Your task to perform on an android device: Search for vegetarian restaurants on Maps Image 0: 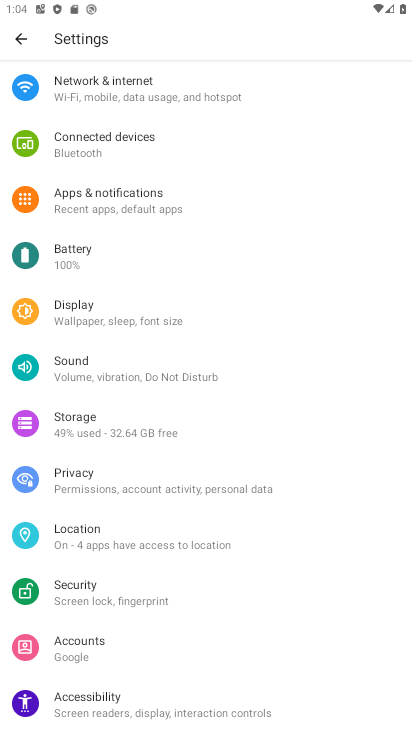
Step 0: press home button
Your task to perform on an android device: Search for vegetarian restaurants on Maps Image 1: 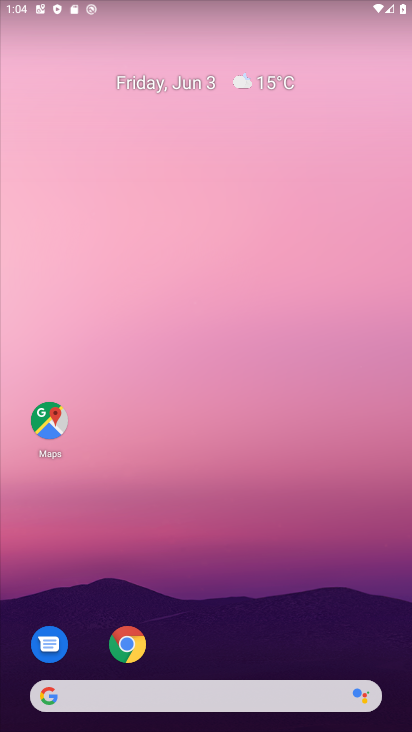
Step 1: click (48, 413)
Your task to perform on an android device: Search for vegetarian restaurants on Maps Image 2: 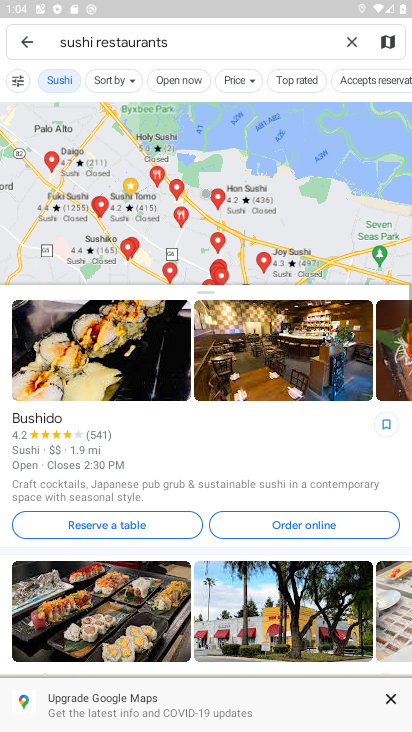
Step 2: click (69, 42)
Your task to perform on an android device: Search for vegetarian restaurants on Maps Image 3: 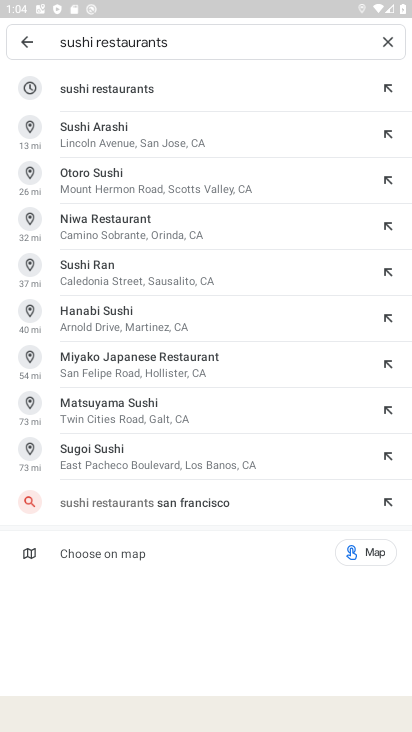
Step 3: click (74, 42)
Your task to perform on an android device: Search for vegetarian restaurants on Maps Image 4: 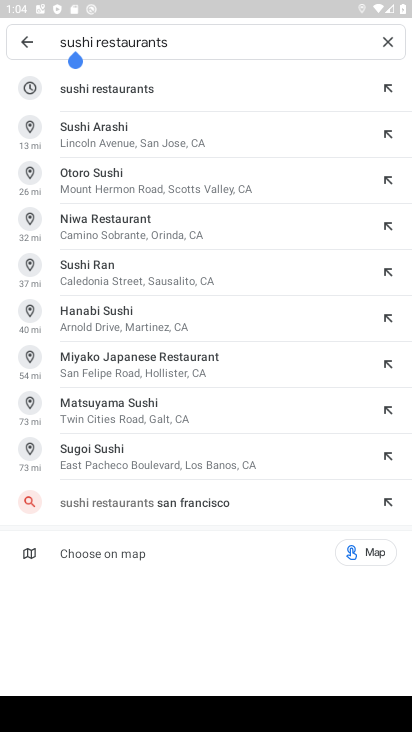
Step 4: click (74, 42)
Your task to perform on an android device: Search for vegetarian restaurants on Maps Image 5: 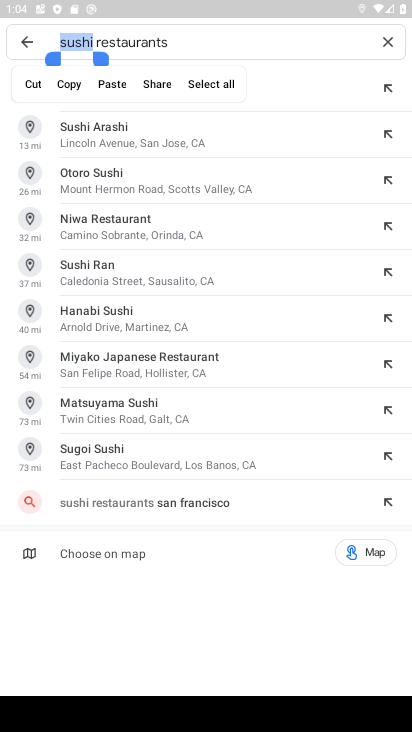
Step 5: type "vegetarian"
Your task to perform on an android device: Search for vegetarian restaurants on Maps Image 6: 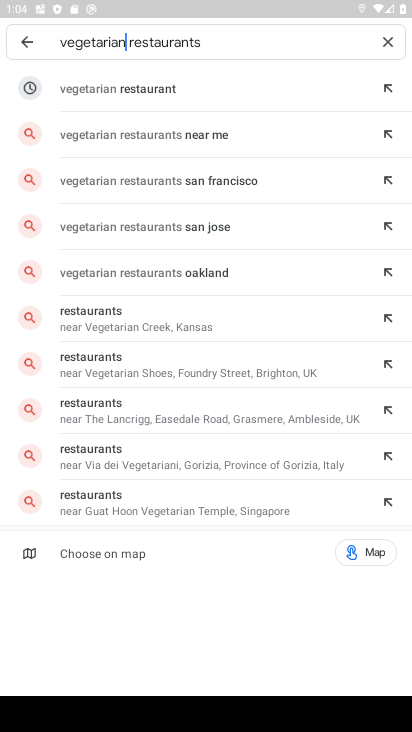
Step 6: click (151, 97)
Your task to perform on an android device: Search for vegetarian restaurants on Maps Image 7: 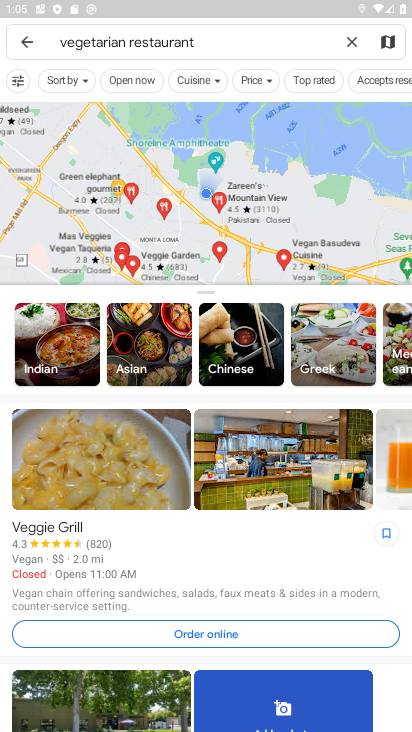
Step 7: task complete